Your task to perform on an android device: Open the Play Movies app and select the watchlist tab. Image 0: 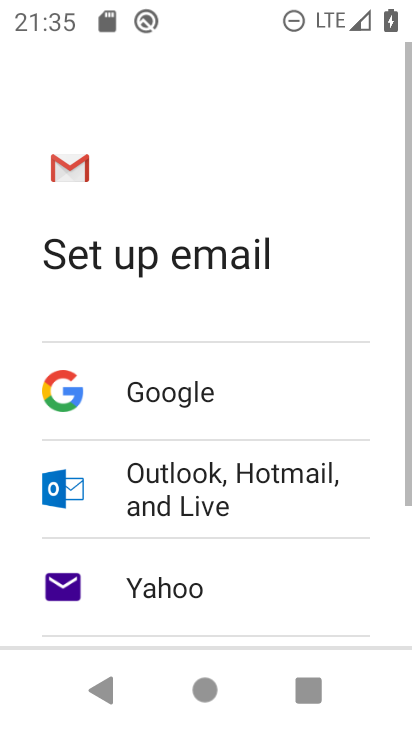
Step 0: press home button
Your task to perform on an android device: Open the Play Movies app and select the watchlist tab. Image 1: 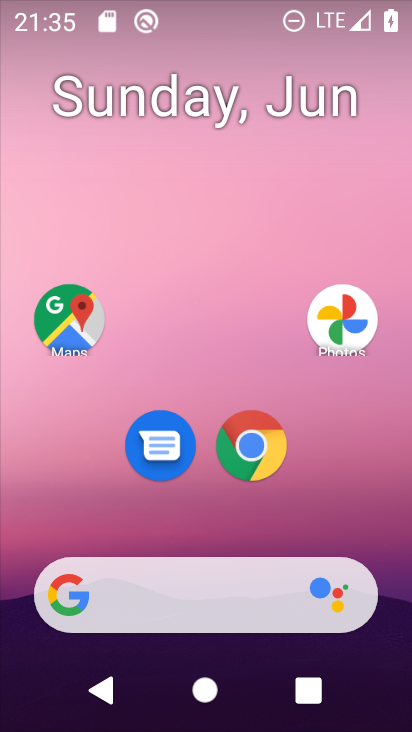
Step 1: drag from (215, 500) to (229, 119)
Your task to perform on an android device: Open the Play Movies app and select the watchlist tab. Image 2: 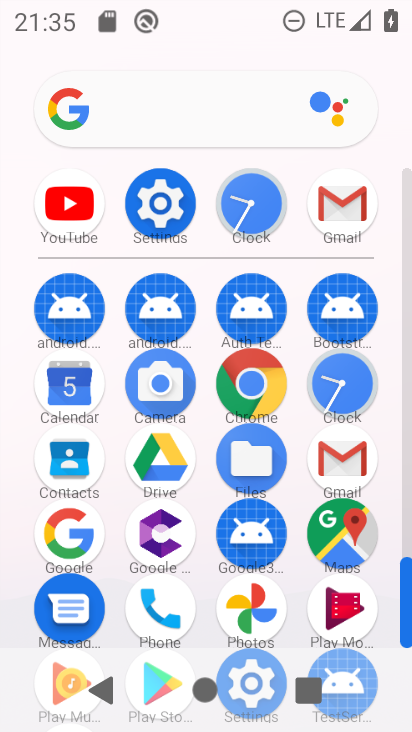
Step 2: click (352, 608)
Your task to perform on an android device: Open the Play Movies app and select the watchlist tab. Image 3: 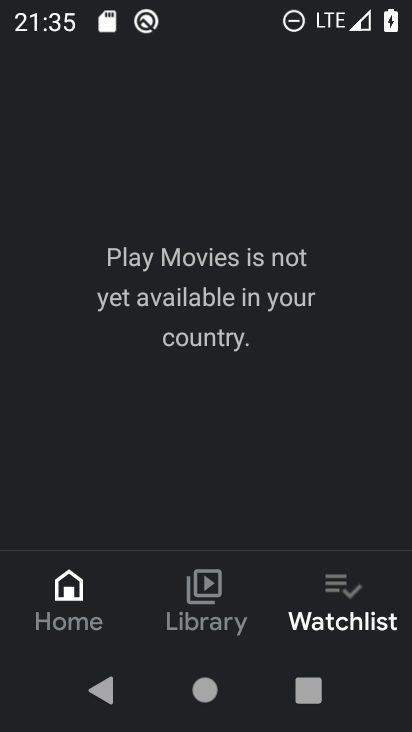
Step 3: click (345, 588)
Your task to perform on an android device: Open the Play Movies app and select the watchlist tab. Image 4: 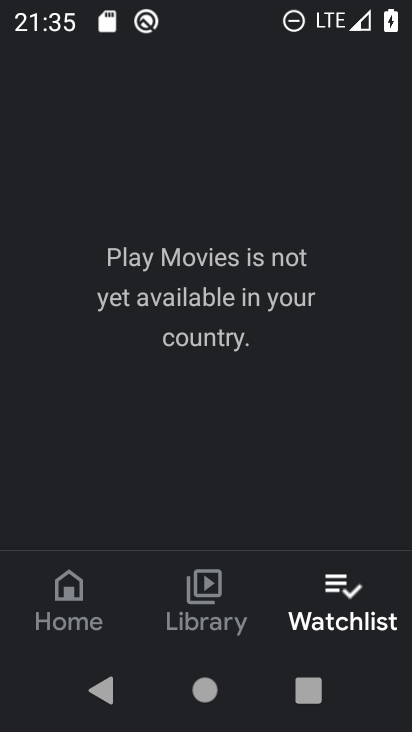
Step 4: task complete